Your task to perform on an android device: Open calendar and show me the fourth week of next month Image 0: 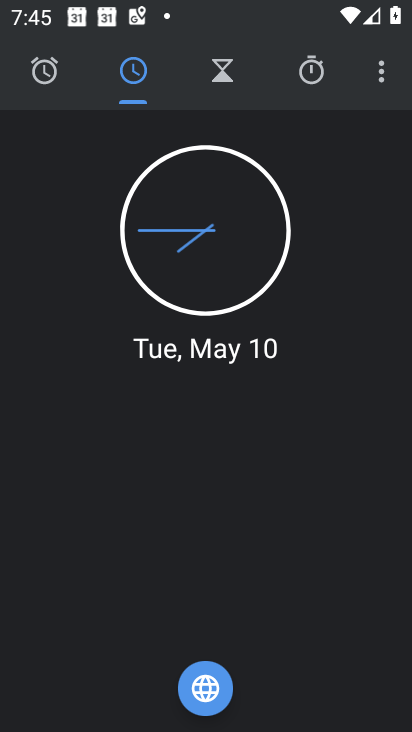
Step 0: press home button
Your task to perform on an android device: Open calendar and show me the fourth week of next month Image 1: 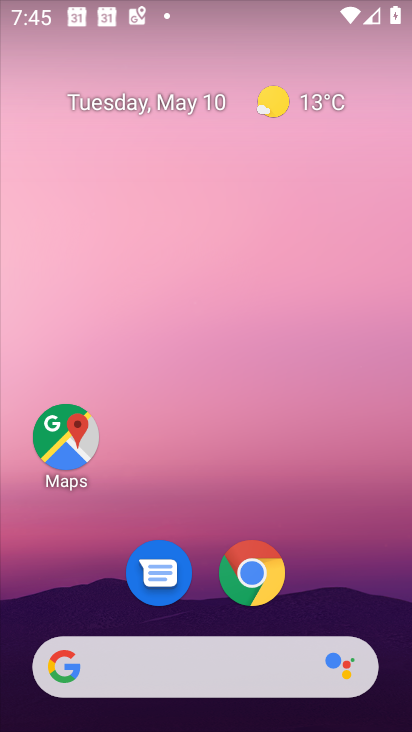
Step 1: drag from (382, 623) to (360, 43)
Your task to perform on an android device: Open calendar and show me the fourth week of next month Image 2: 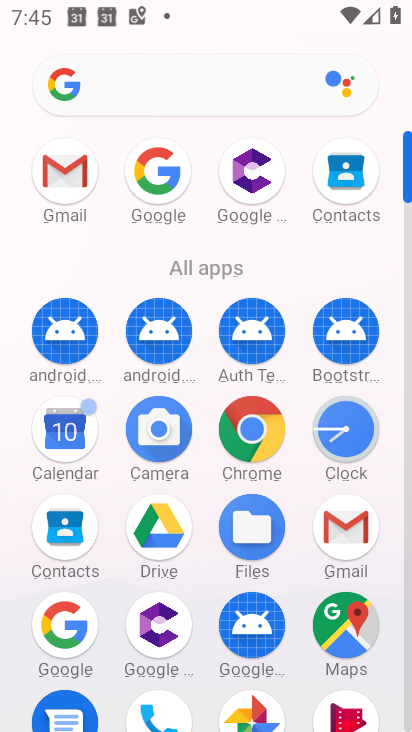
Step 2: click (51, 444)
Your task to perform on an android device: Open calendar and show me the fourth week of next month Image 3: 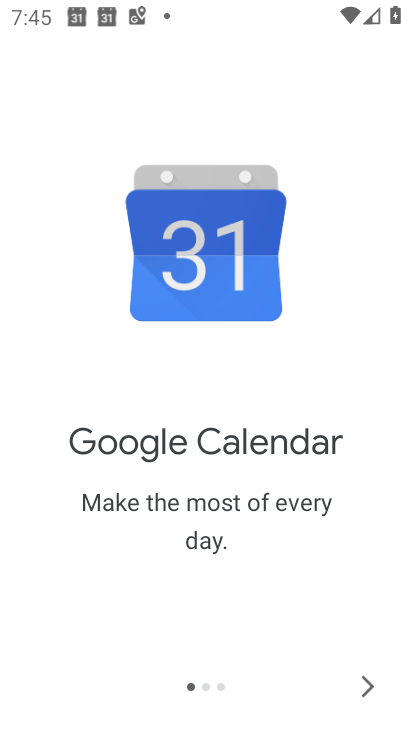
Step 3: click (367, 687)
Your task to perform on an android device: Open calendar and show me the fourth week of next month Image 4: 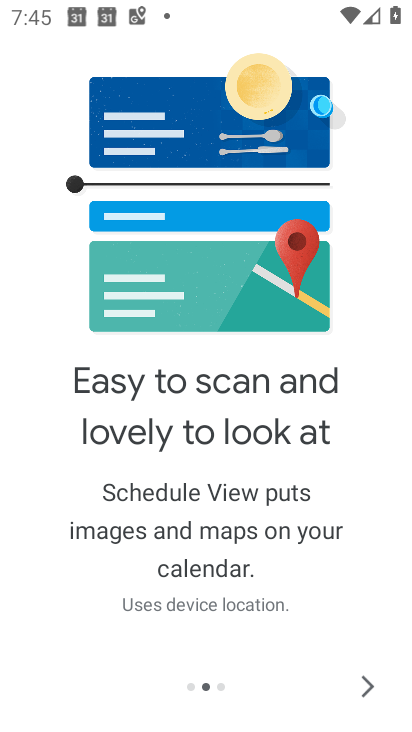
Step 4: click (367, 687)
Your task to perform on an android device: Open calendar and show me the fourth week of next month Image 5: 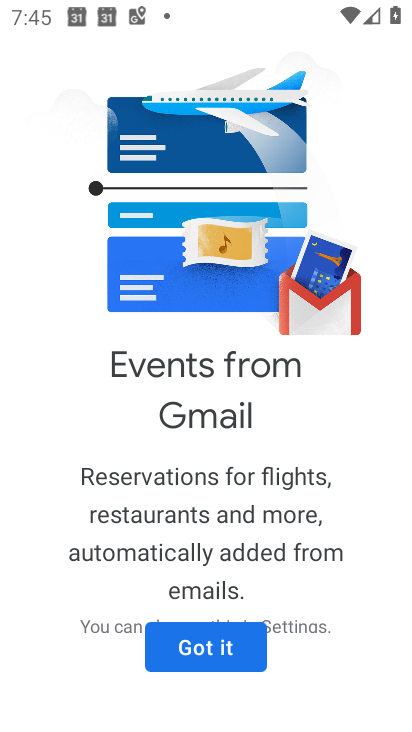
Step 5: click (215, 668)
Your task to perform on an android device: Open calendar and show me the fourth week of next month Image 6: 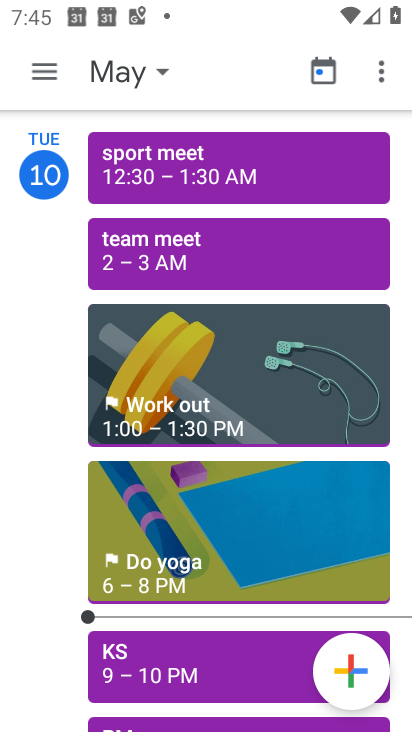
Step 6: click (156, 78)
Your task to perform on an android device: Open calendar and show me the fourth week of next month Image 7: 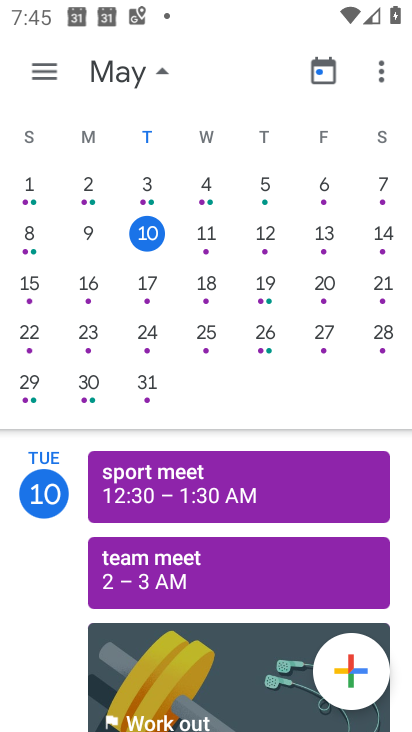
Step 7: drag from (255, 222) to (1, 189)
Your task to perform on an android device: Open calendar and show me the fourth week of next month Image 8: 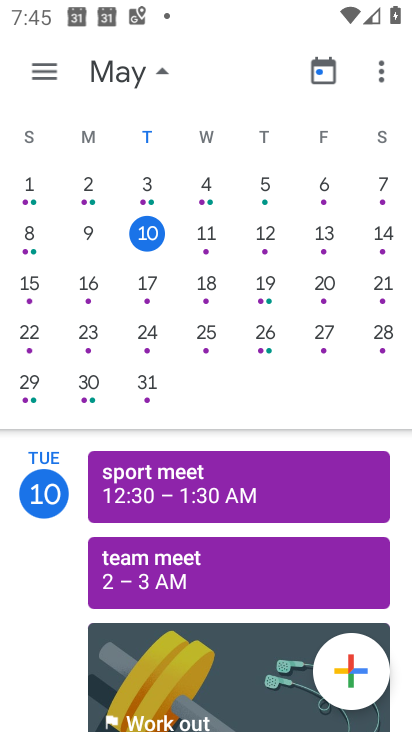
Step 8: drag from (331, 210) to (4, 322)
Your task to perform on an android device: Open calendar and show me the fourth week of next month Image 9: 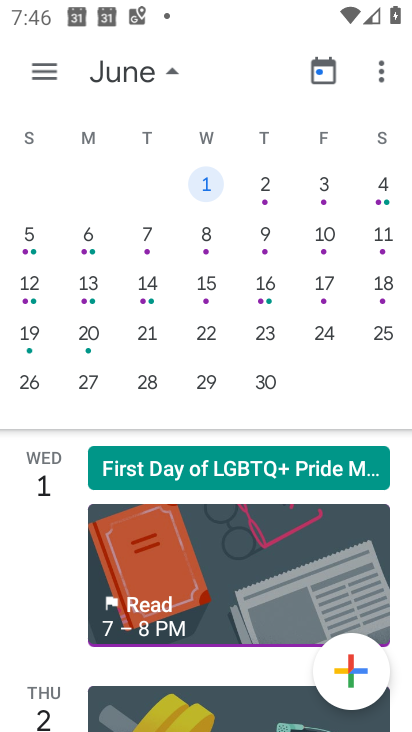
Step 9: click (28, 71)
Your task to perform on an android device: Open calendar and show me the fourth week of next month Image 10: 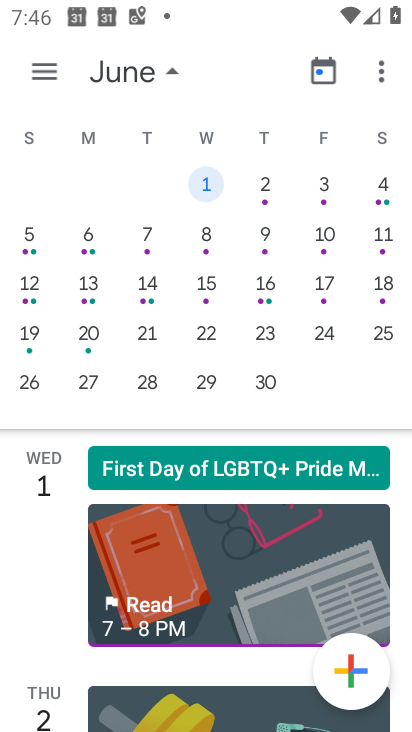
Step 10: click (38, 77)
Your task to perform on an android device: Open calendar and show me the fourth week of next month Image 11: 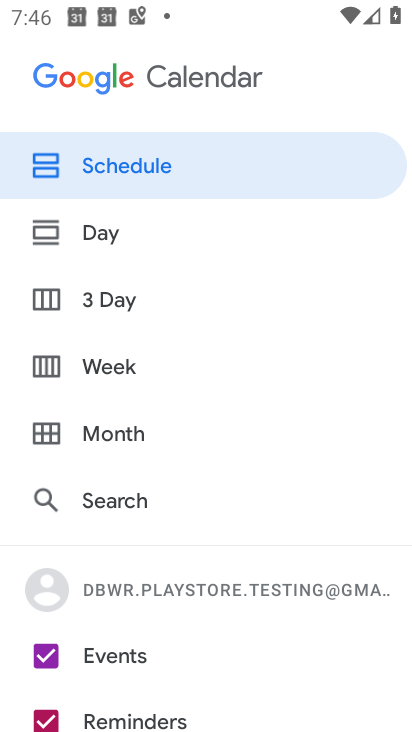
Step 11: click (101, 363)
Your task to perform on an android device: Open calendar and show me the fourth week of next month Image 12: 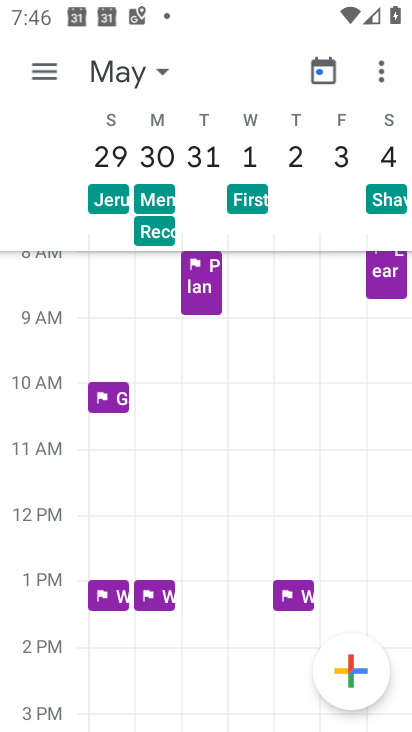
Step 12: task complete